Your task to perform on an android device: see tabs open on other devices in the chrome app Image 0: 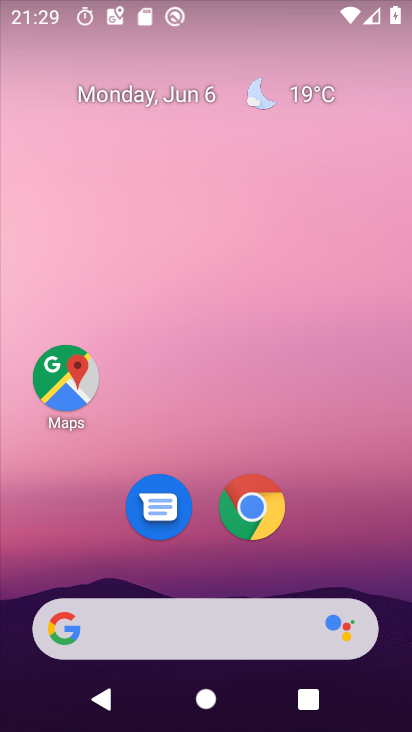
Step 0: press home button
Your task to perform on an android device: see tabs open on other devices in the chrome app Image 1: 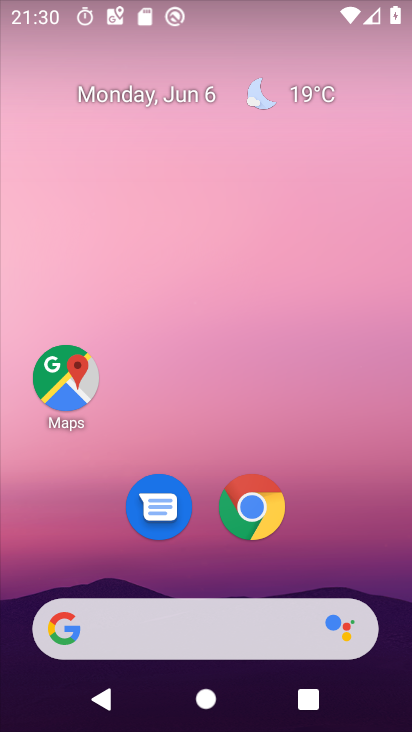
Step 1: click (235, 526)
Your task to perform on an android device: see tabs open on other devices in the chrome app Image 2: 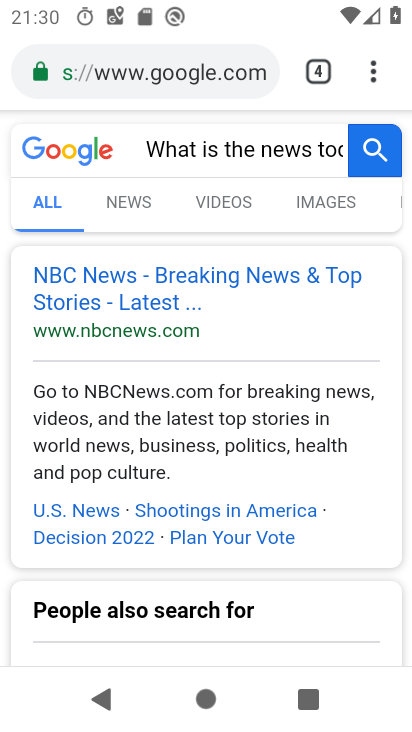
Step 2: task complete